Your task to perform on an android device: open app "ColorNote Notepad Notes" Image 0: 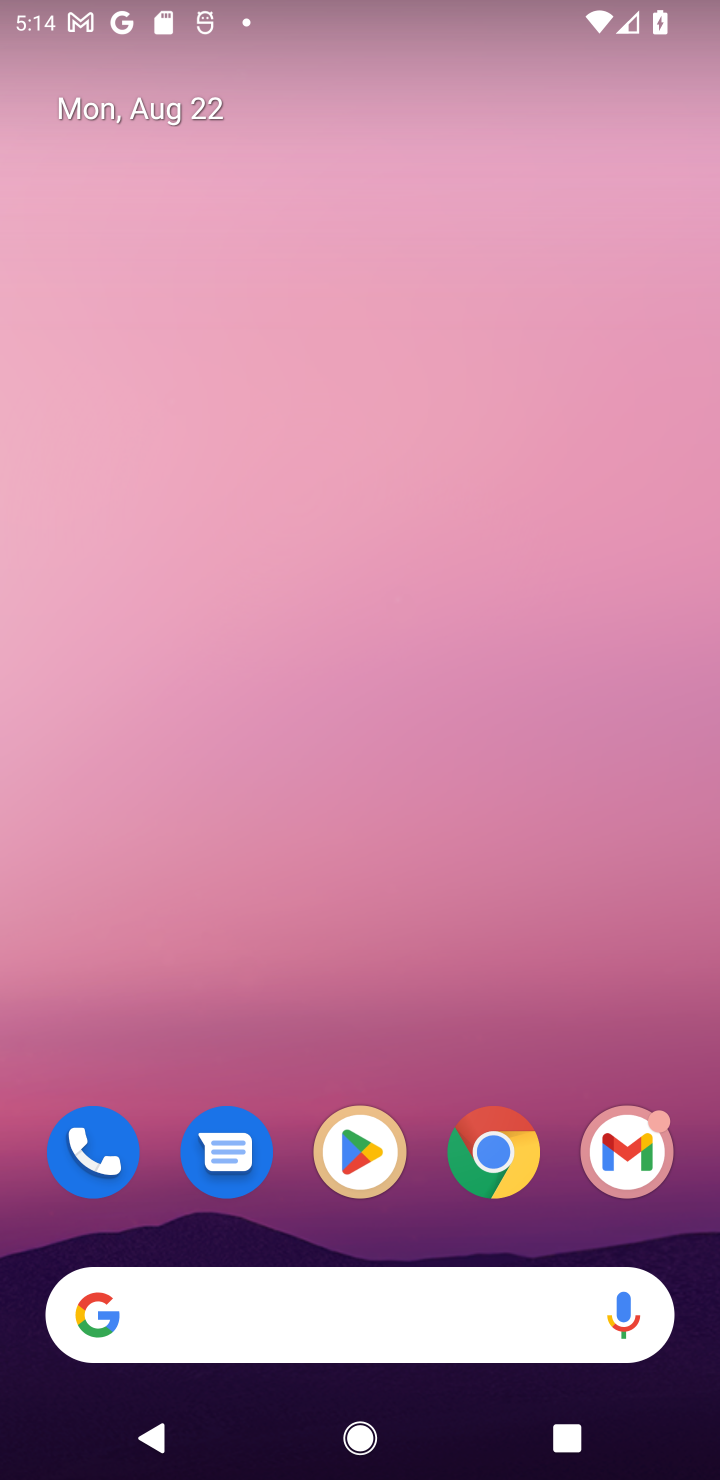
Step 0: click (364, 1165)
Your task to perform on an android device: open app "ColorNote Notepad Notes" Image 1: 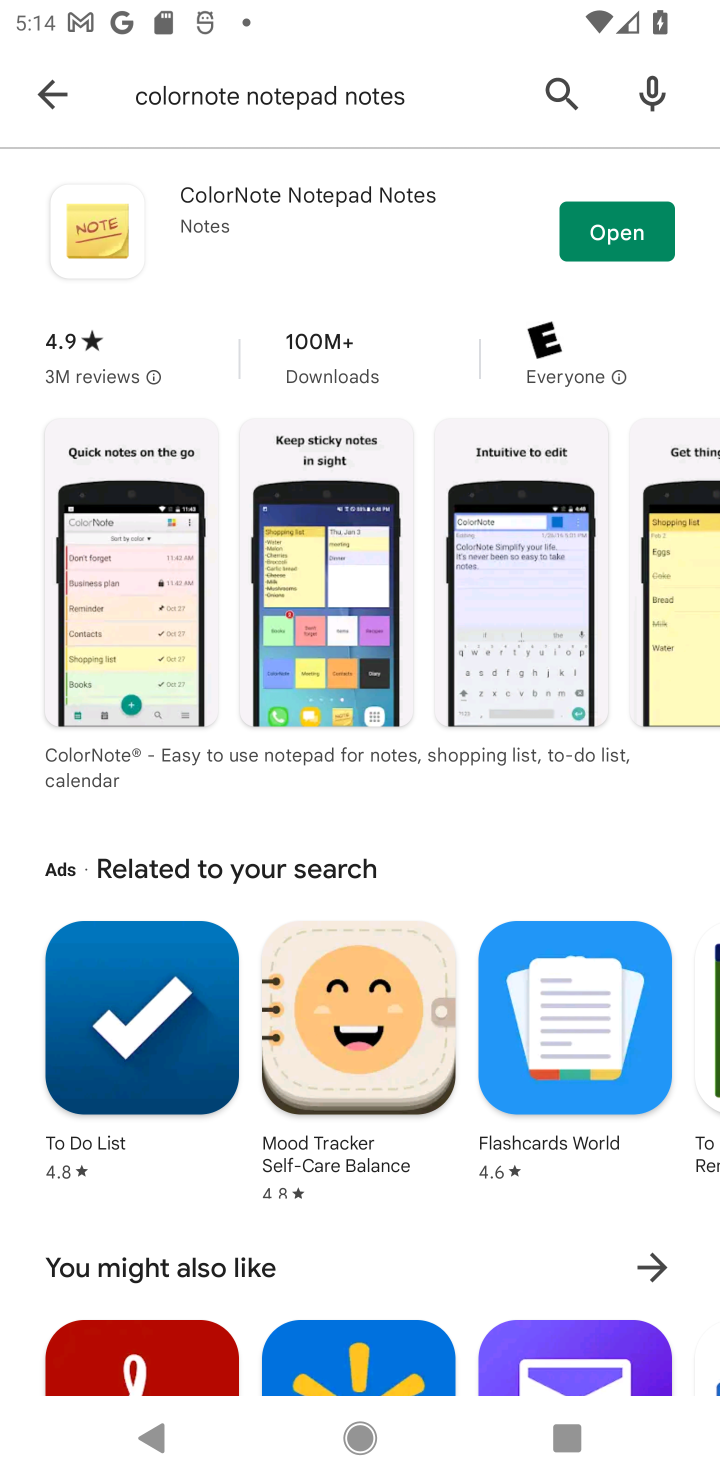
Step 1: click (612, 227)
Your task to perform on an android device: open app "ColorNote Notepad Notes" Image 2: 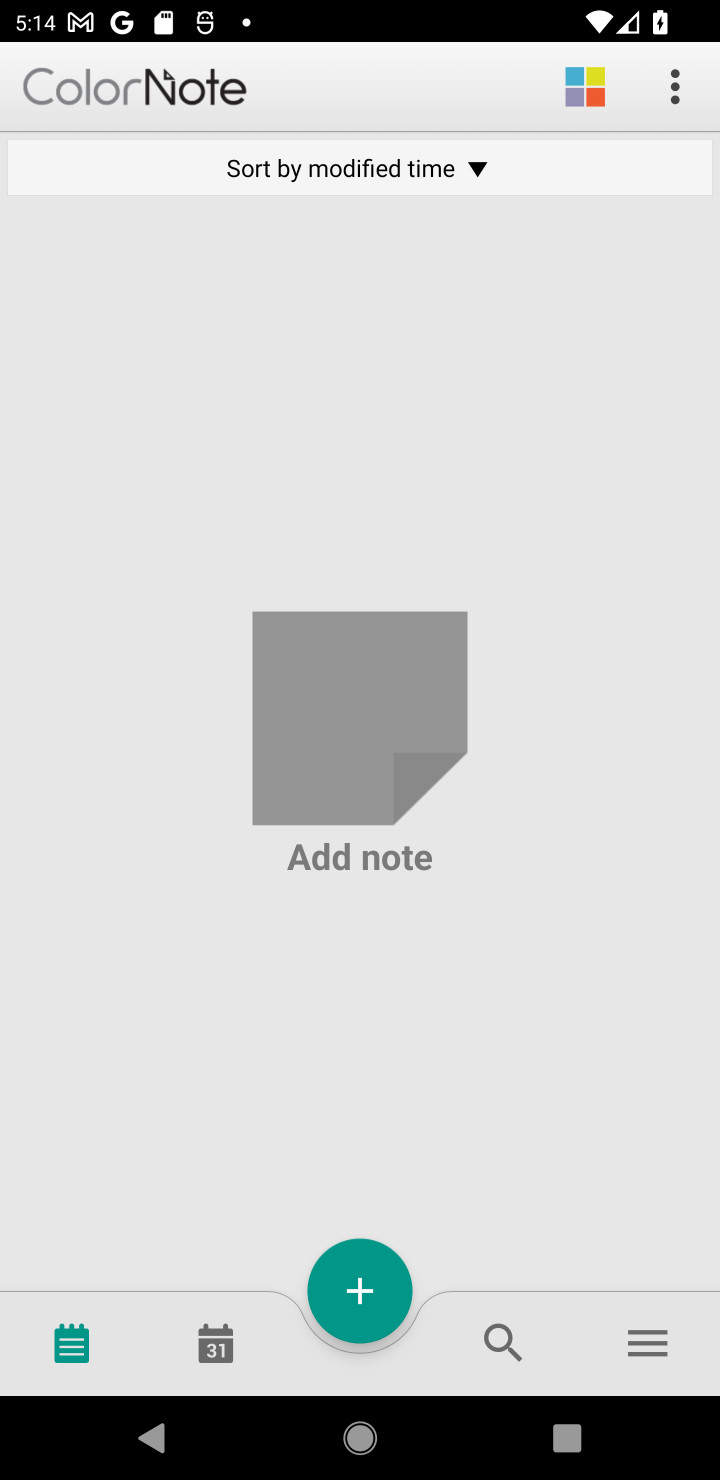
Step 2: task complete